Your task to perform on an android device: install app "Google Play Games" Image 0: 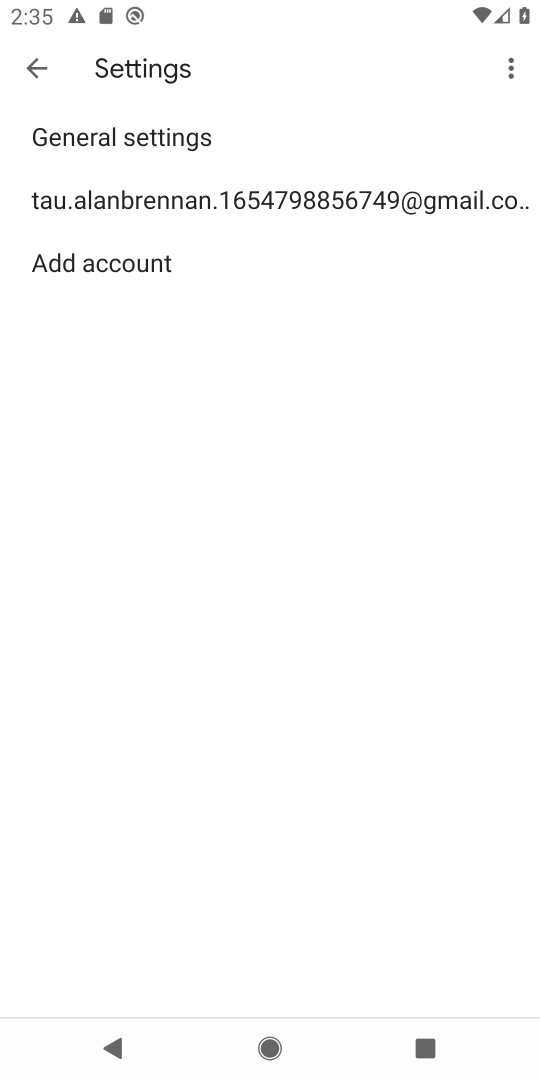
Step 0: press home button
Your task to perform on an android device: install app "Google Play Games" Image 1: 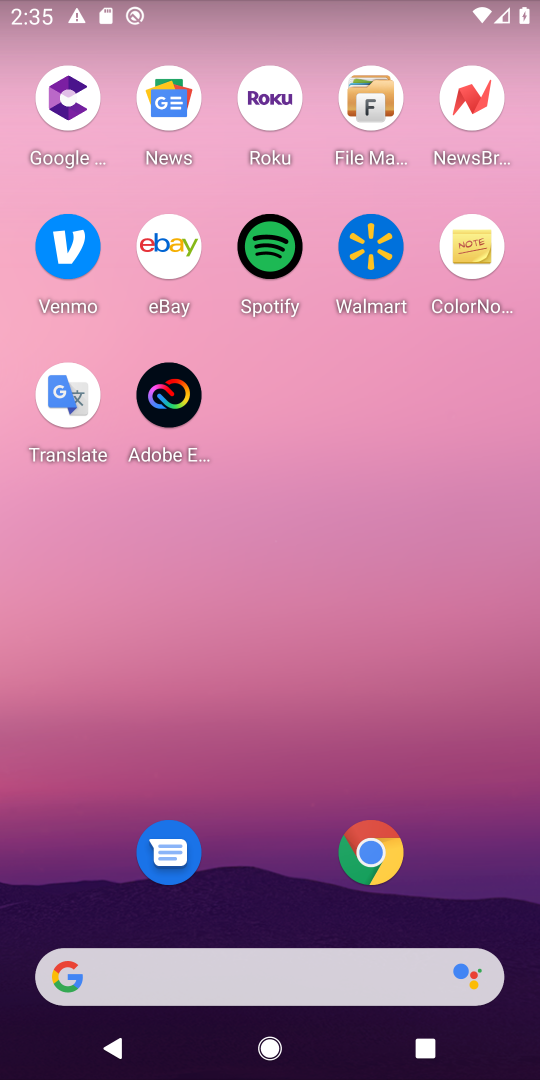
Step 1: drag from (277, 916) to (278, 151)
Your task to perform on an android device: install app "Google Play Games" Image 2: 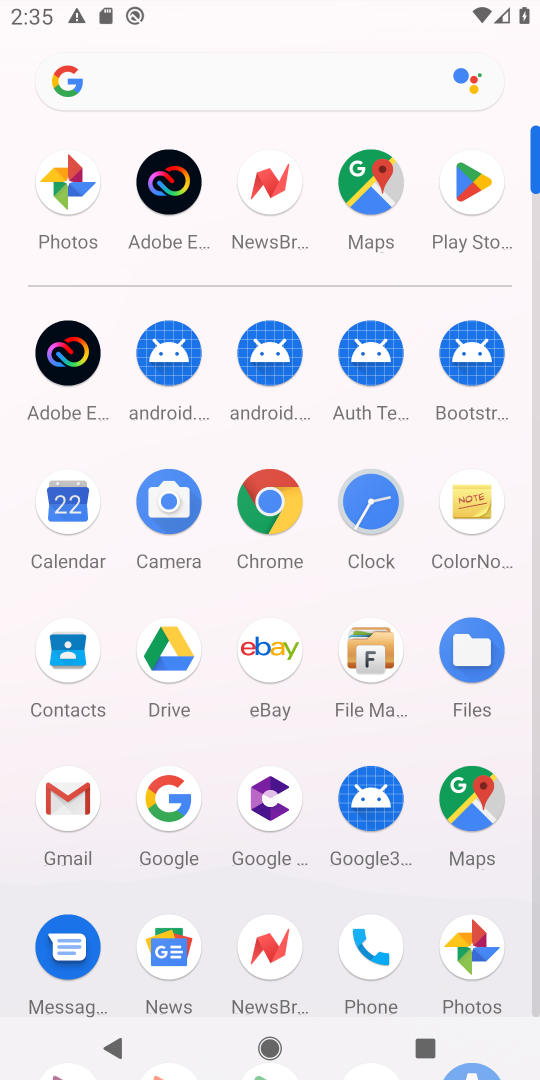
Step 2: click (467, 180)
Your task to perform on an android device: install app "Google Play Games" Image 3: 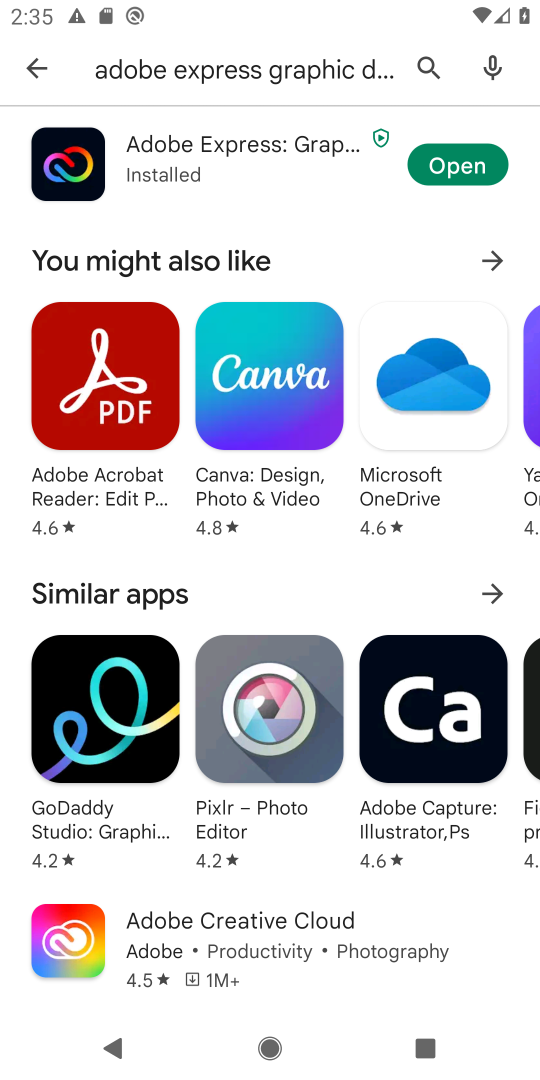
Step 3: click (426, 62)
Your task to perform on an android device: install app "Google Play Games" Image 4: 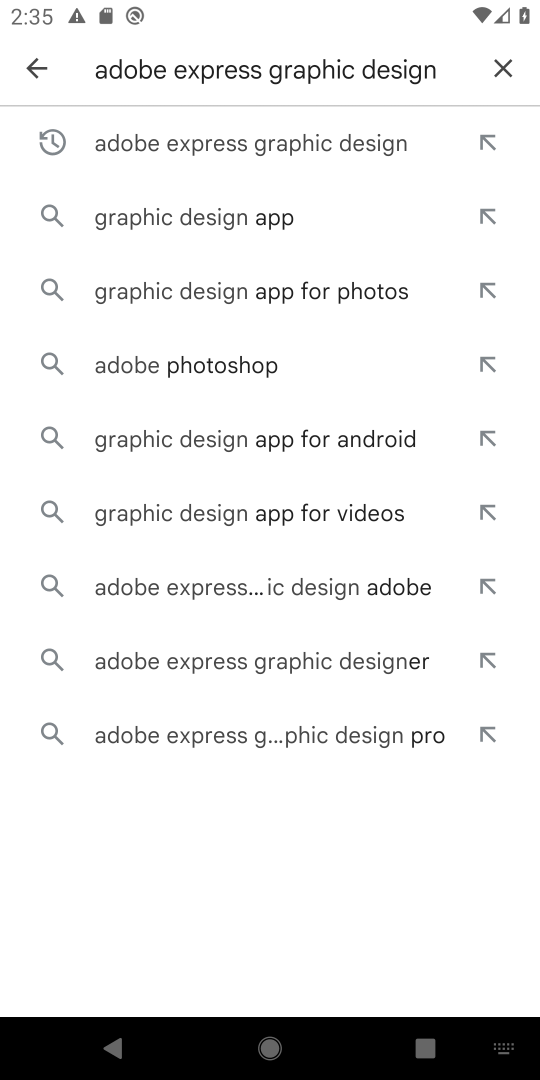
Step 4: click (500, 63)
Your task to perform on an android device: install app "Google Play Games" Image 5: 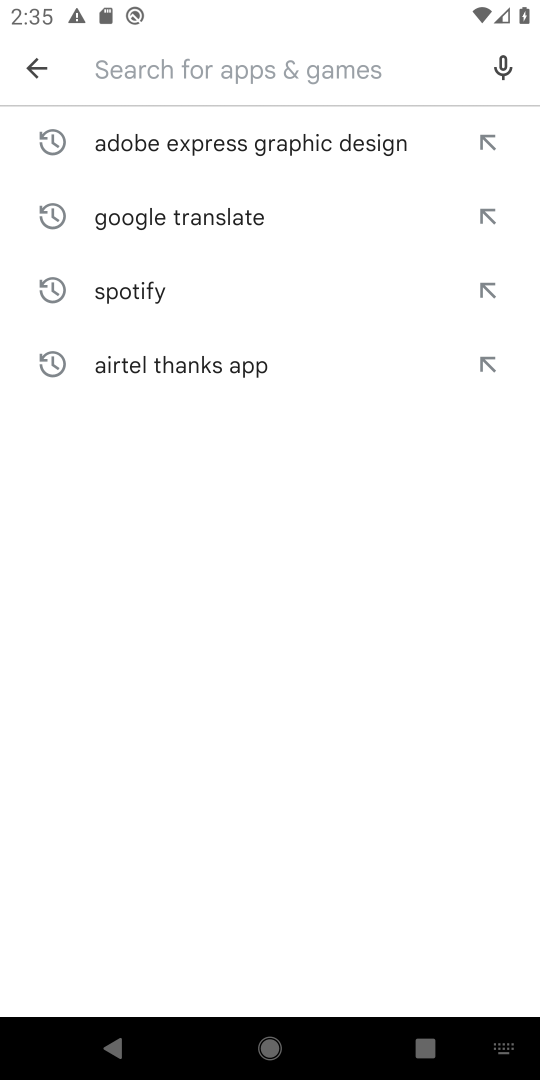
Step 5: type "Google Play Games"
Your task to perform on an android device: install app "Google Play Games" Image 6: 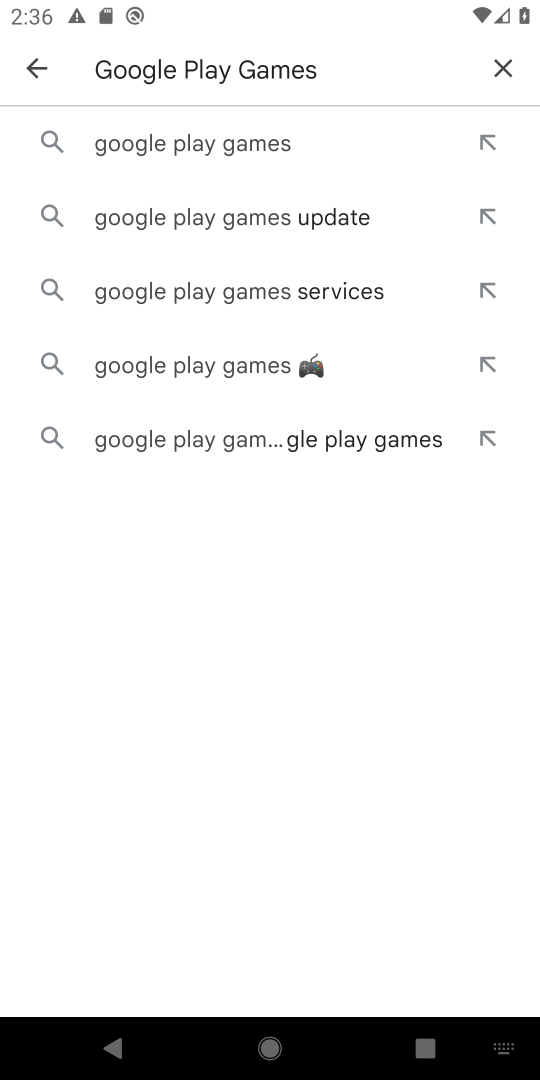
Step 6: click (235, 141)
Your task to perform on an android device: install app "Google Play Games" Image 7: 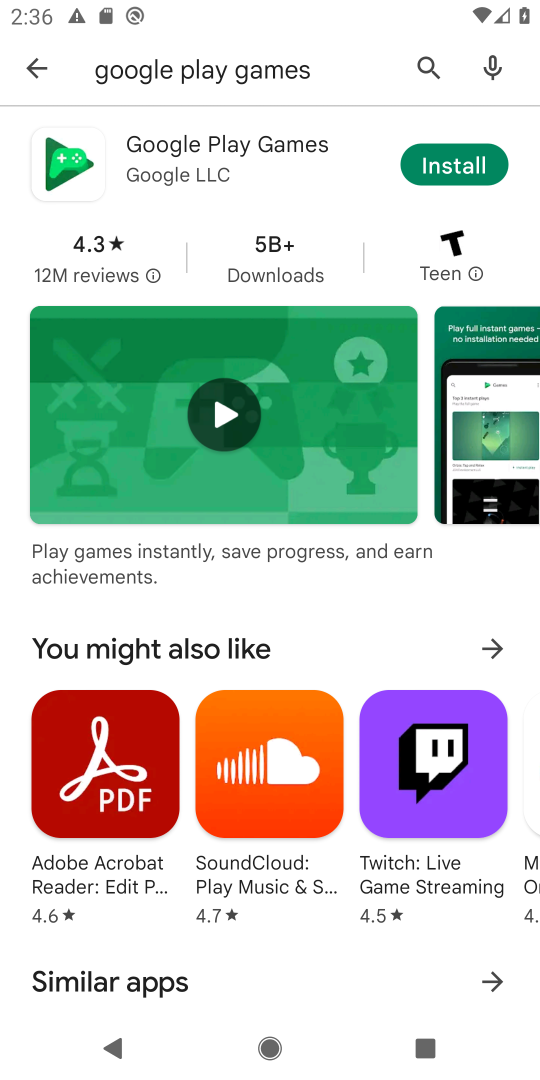
Step 7: click (434, 162)
Your task to perform on an android device: install app "Google Play Games" Image 8: 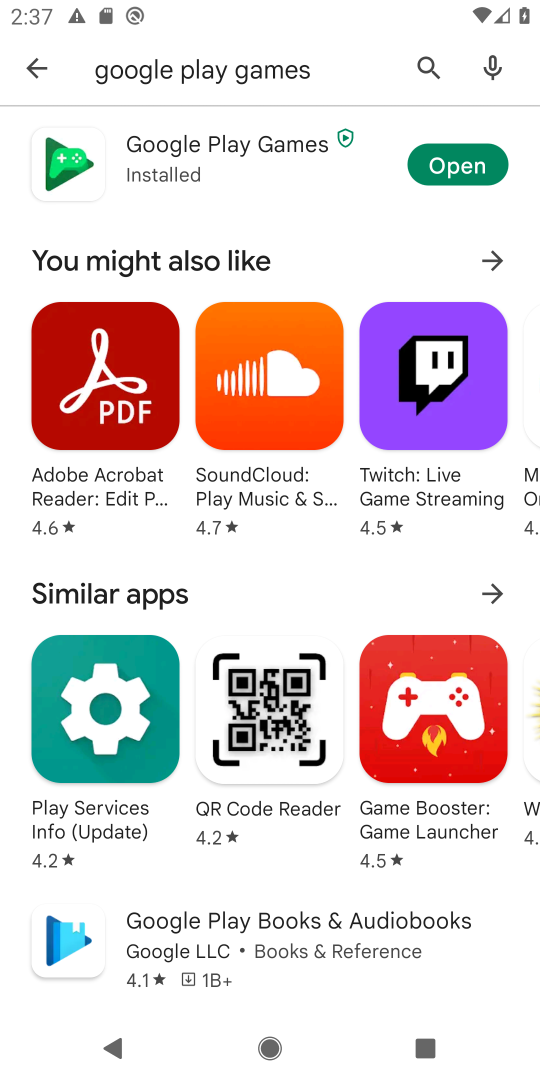
Step 8: task complete